Your task to perform on an android device: Go to network settings Image 0: 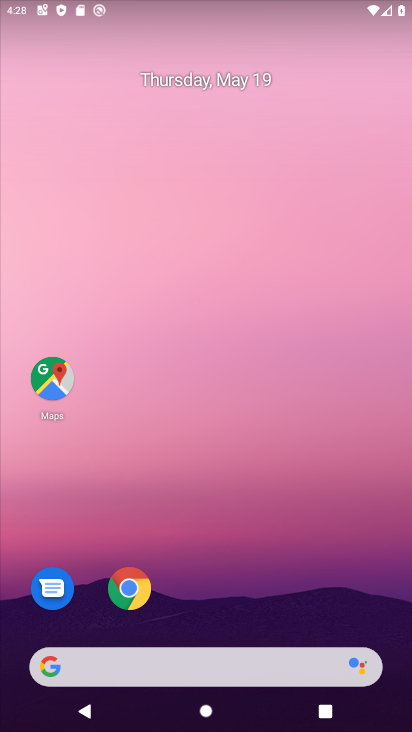
Step 0: drag from (232, 8) to (324, 578)
Your task to perform on an android device: Go to network settings Image 1: 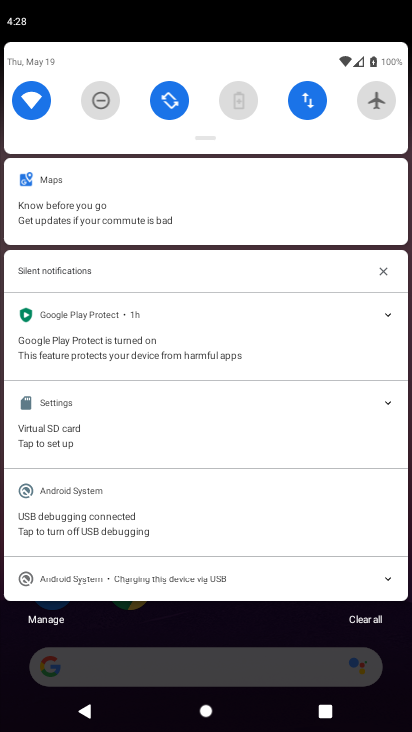
Step 1: click (312, 92)
Your task to perform on an android device: Go to network settings Image 2: 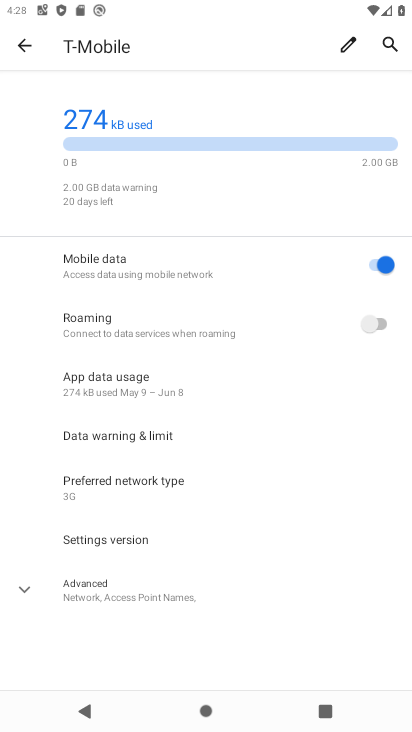
Step 2: task complete